Your task to perform on an android device: Go to battery settings Image 0: 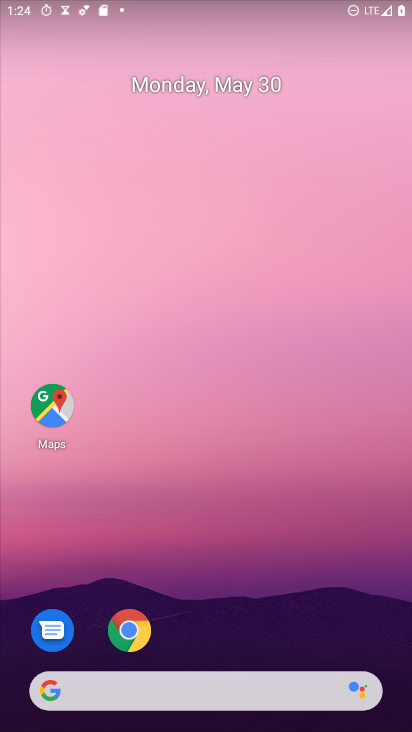
Step 0: drag from (292, 725) to (225, 48)
Your task to perform on an android device: Go to battery settings Image 1: 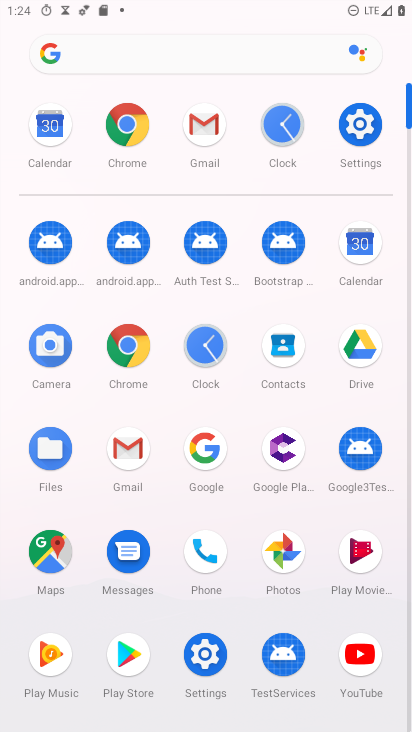
Step 1: click (202, 641)
Your task to perform on an android device: Go to battery settings Image 2: 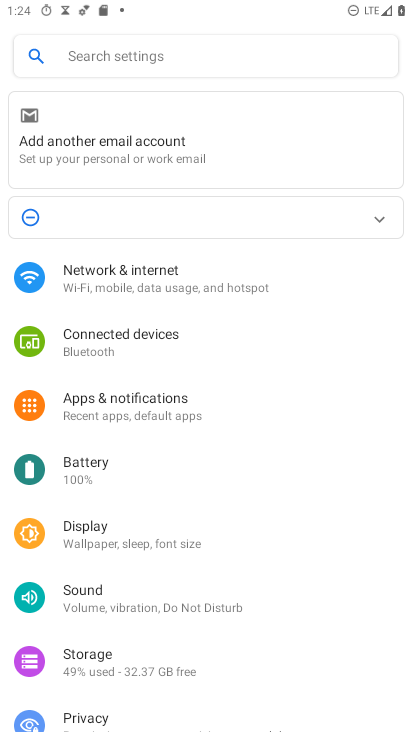
Step 2: click (132, 471)
Your task to perform on an android device: Go to battery settings Image 3: 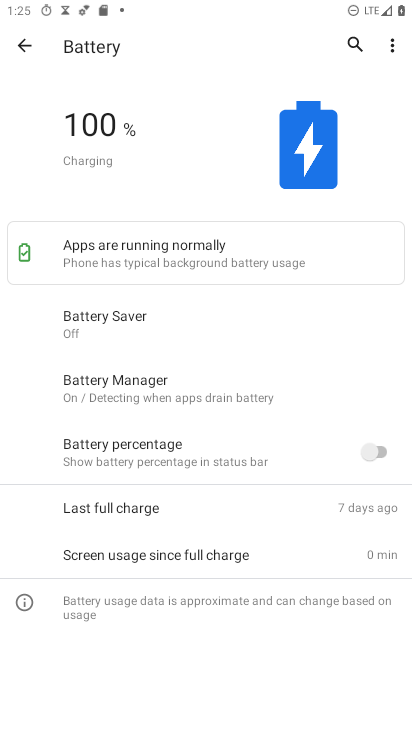
Step 3: task complete